Your task to perform on an android device: Open Youtube and go to "Your channel" Image 0: 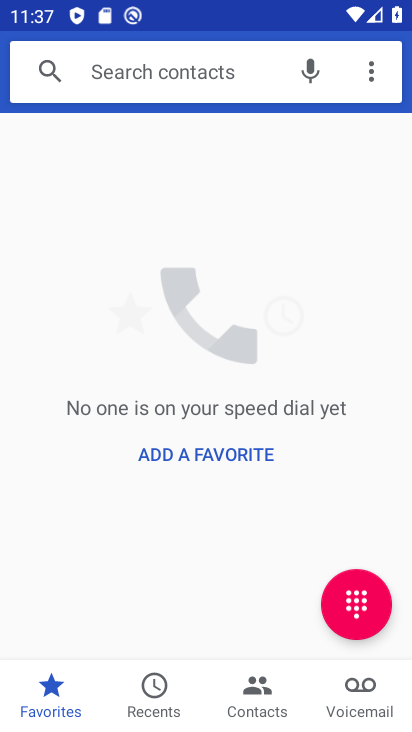
Step 0: press home button
Your task to perform on an android device: Open Youtube and go to "Your channel" Image 1: 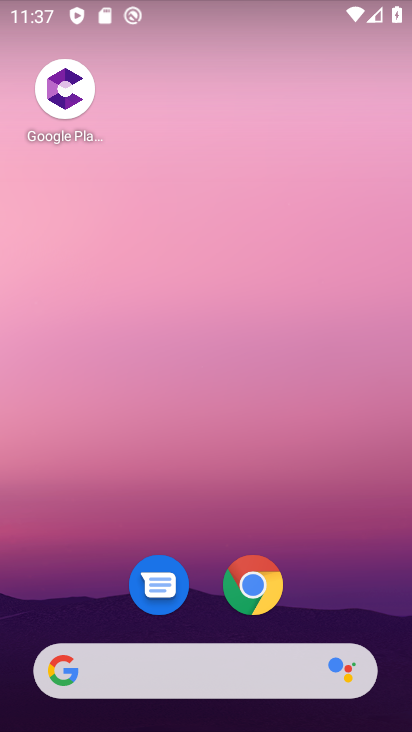
Step 1: drag from (201, 512) to (191, 79)
Your task to perform on an android device: Open Youtube and go to "Your channel" Image 2: 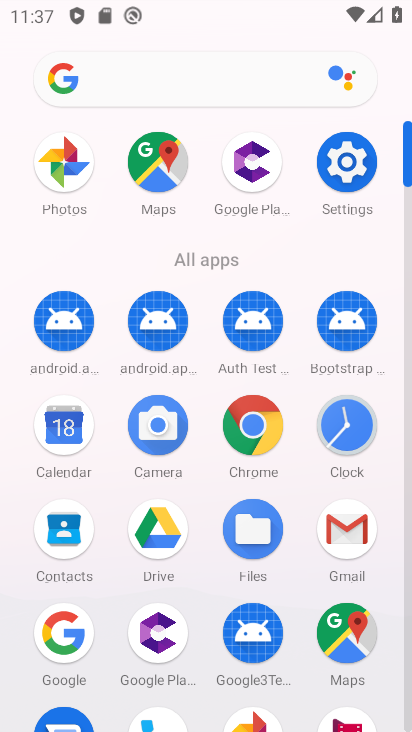
Step 2: drag from (202, 476) to (211, 222)
Your task to perform on an android device: Open Youtube and go to "Your channel" Image 3: 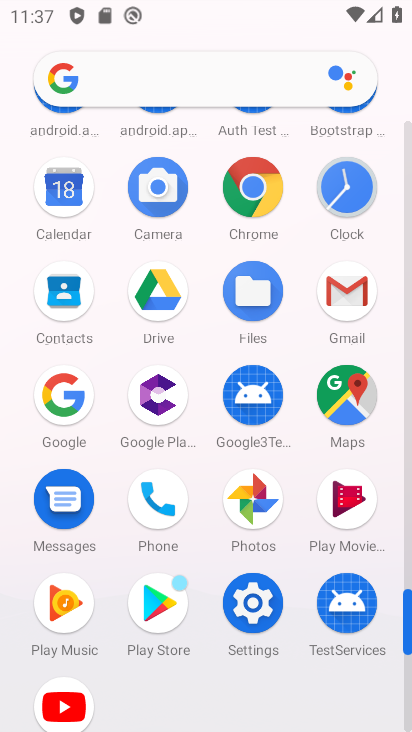
Step 3: click (75, 694)
Your task to perform on an android device: Open Youtube and go to "Your channel" Image 4: 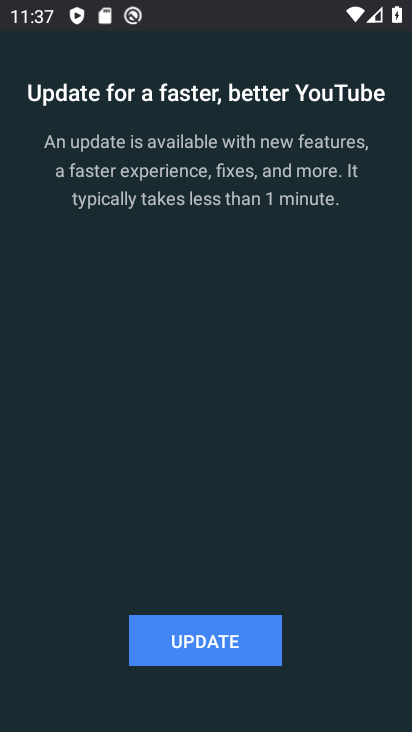
Step 4: click (233, 646)
Your task to perform on an android device: Open Youtube and go to "Your channel" Image 5: 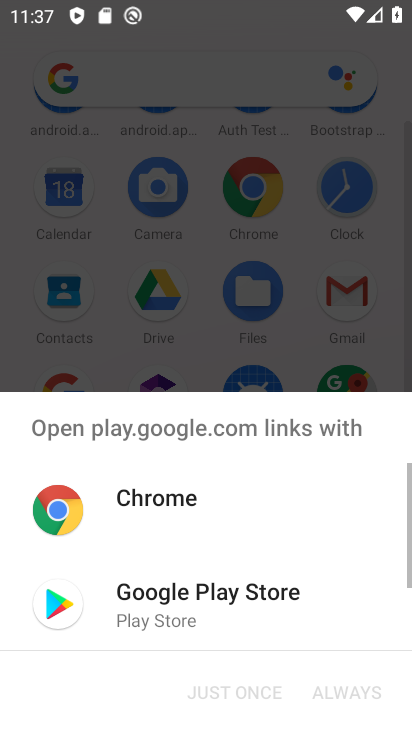
Step 5: click (189, 597)
Your task to perform on an android device: Open Youtube and go to "Your channel" Image 6: 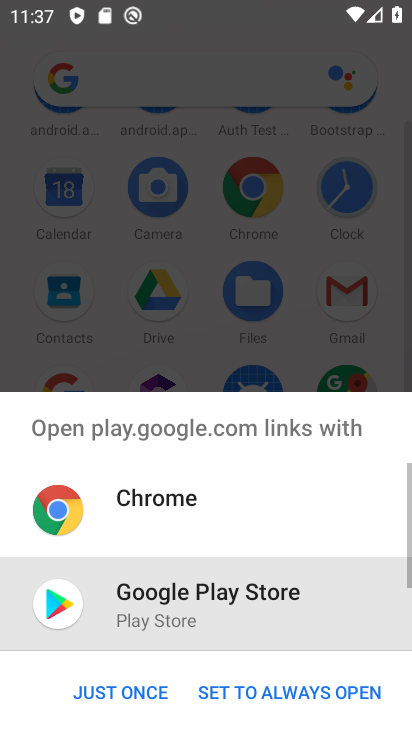
Step 6: click (144, 690)
Your task to perform on an android device: Open Youtube and go to "Your channel" Image 7: 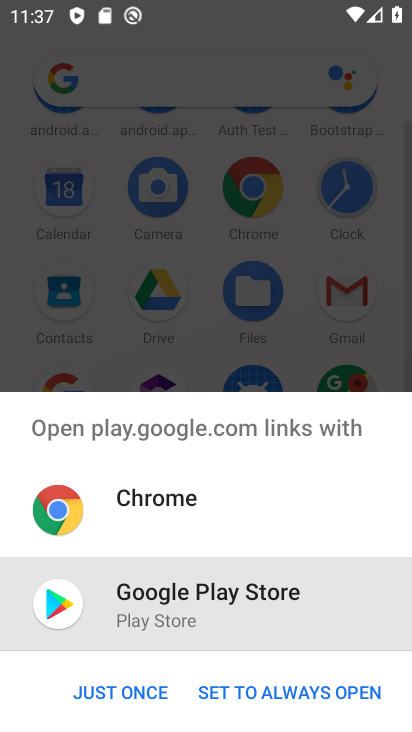
Step 7: click (151, 684)
Your task to perform on an android device: Open Youtube and go to "Your channel" Image 8: 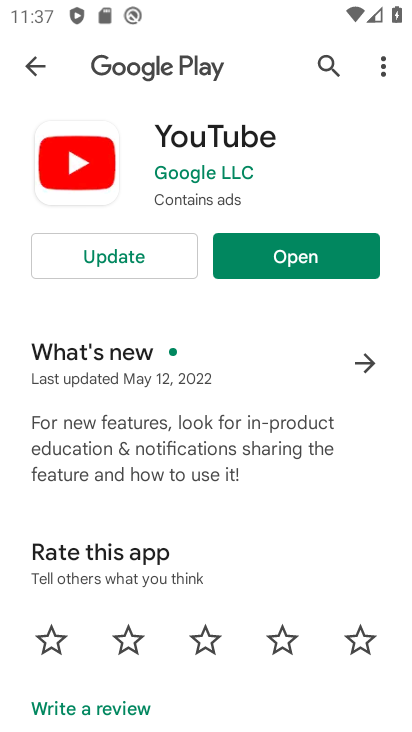
Step 8: click (153, 261)
Your task to perform on an android device: Open Youtube and go to "Your channel" Image 9: 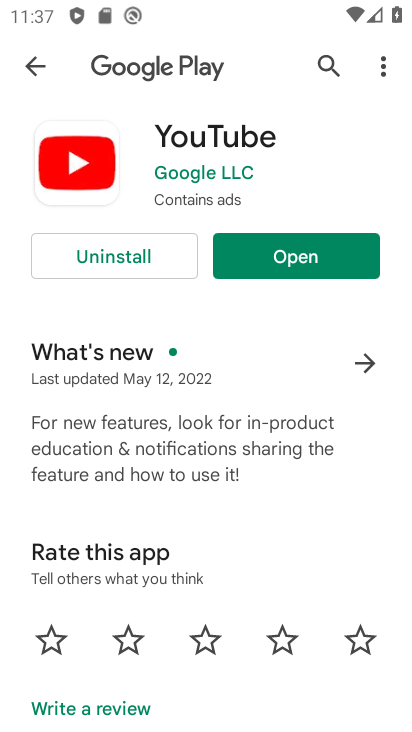
Step 9: click (351, 253)
Your task to perform on an android device: Open Youtube and go to "Your channel" Image 10: 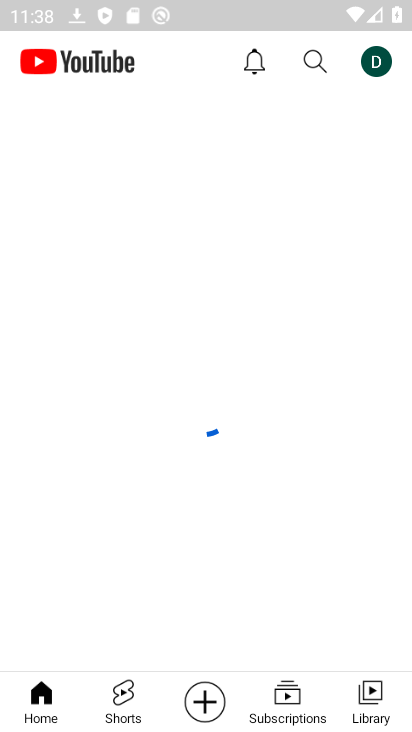
Step 10: click (374, 62)
Your task to perform on an android device: Open Youtube and go to "Your channel" Image 11: 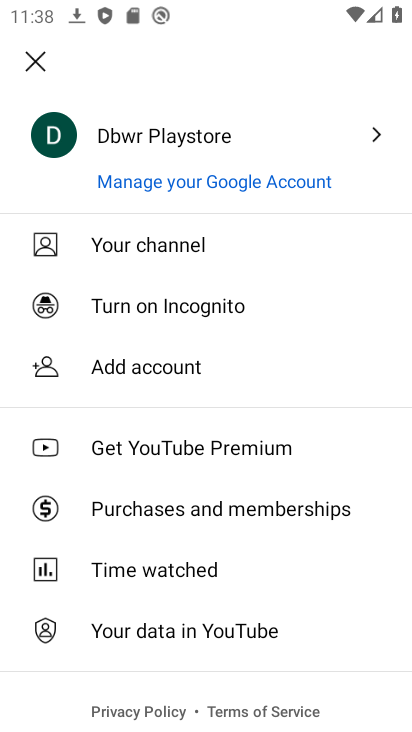
Step 11: click (208, 242)
Your task to perform on an android device: Open Youtube and go to "Your channel" Image 12: 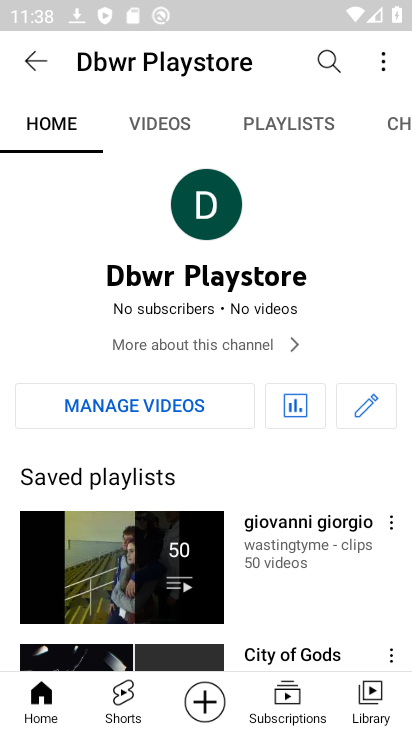
Step 12: task complete